Your task to perform on an android device: Go to Maps Image 0: 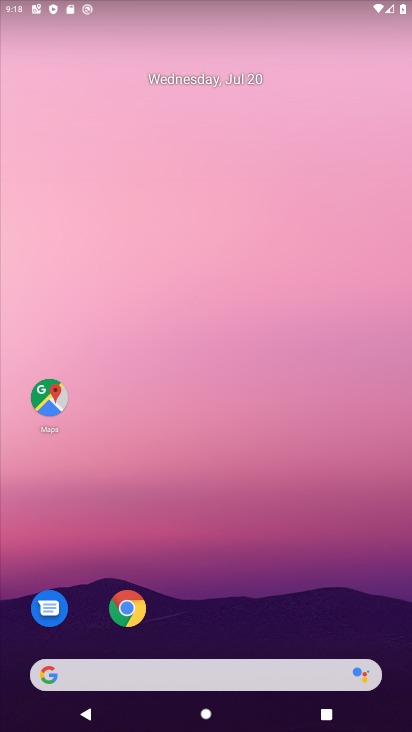
Step 0: click (54, 396)
Your task to perform on an android device: Go to Maps Image 1: 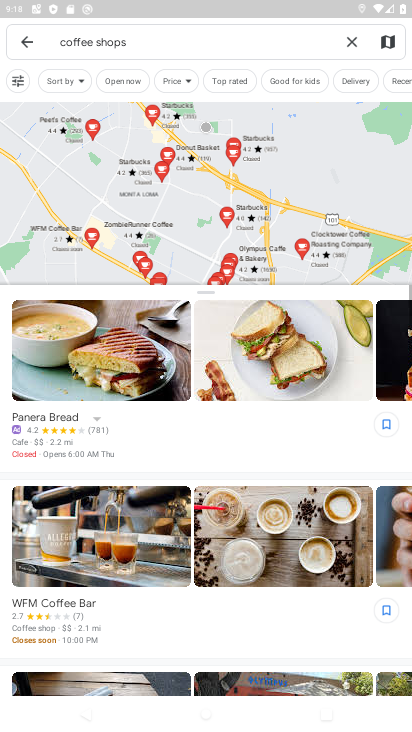
Step 1: task complete